Your task to perform on an android device: Clear all items from cart on newegg. Add dell alienware to the cart on newegg Image 0: 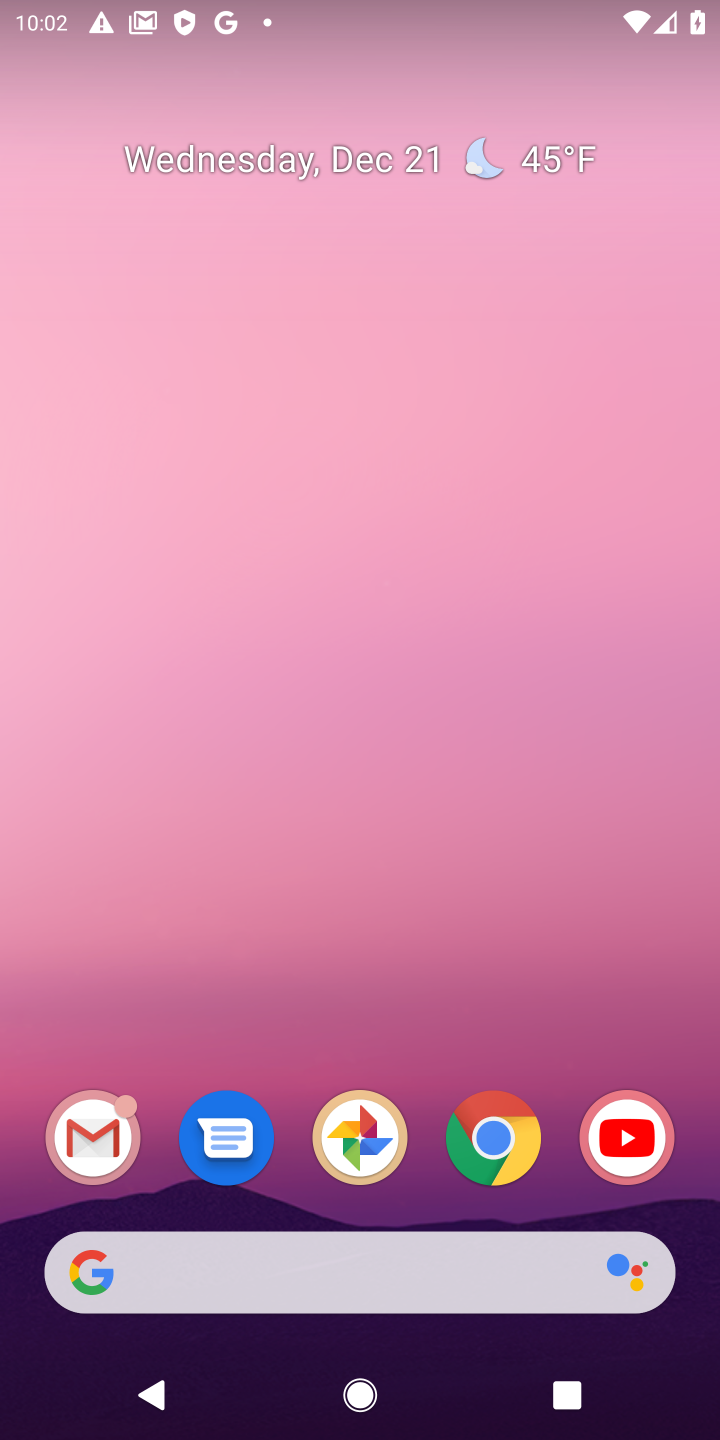
Step 0: click (482, 1142)
Your task to perform on an android device: Clear all items from cart on newegg. Add dell alienware to the cart on newegg Image 1: 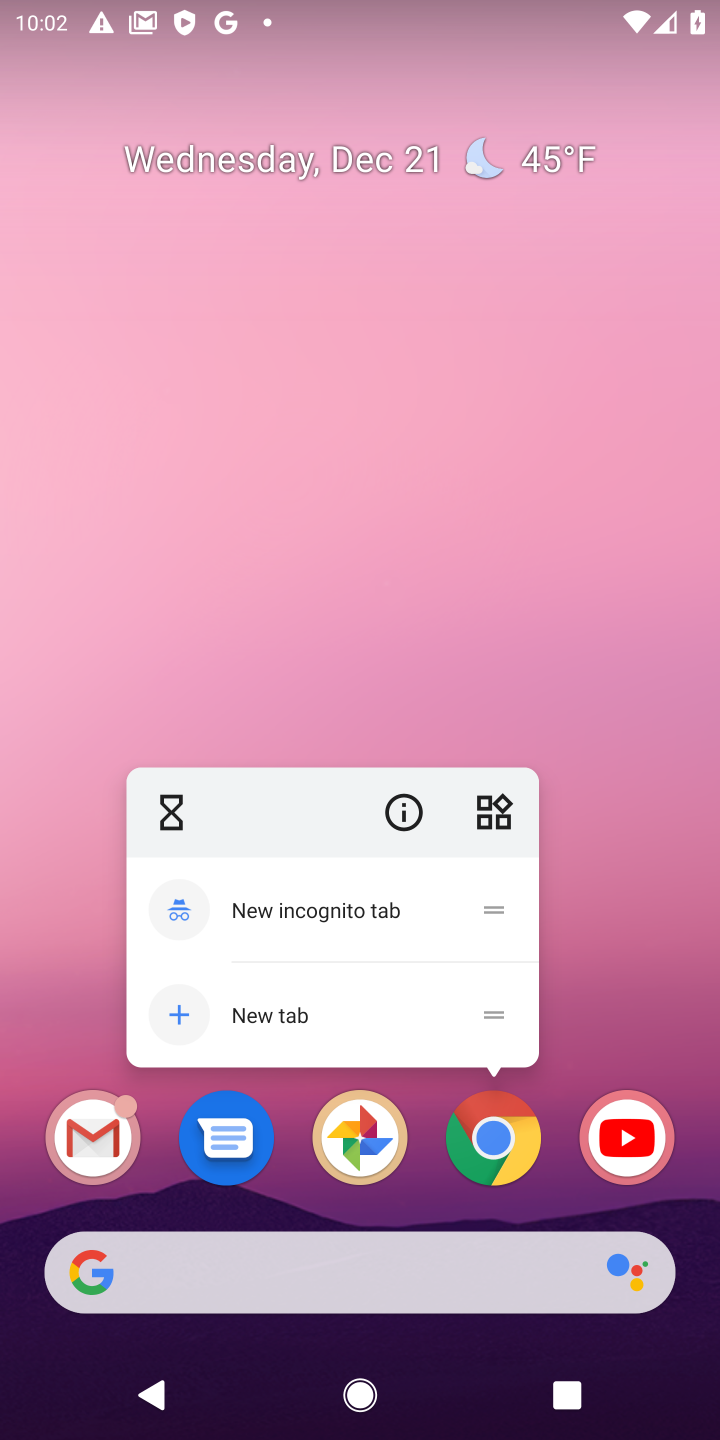
Step 1: click (490, 1152)
Your task to perform on an android device: Clear all items from cart on newegg. Add dell alienware to the cart on newegg Image 2: 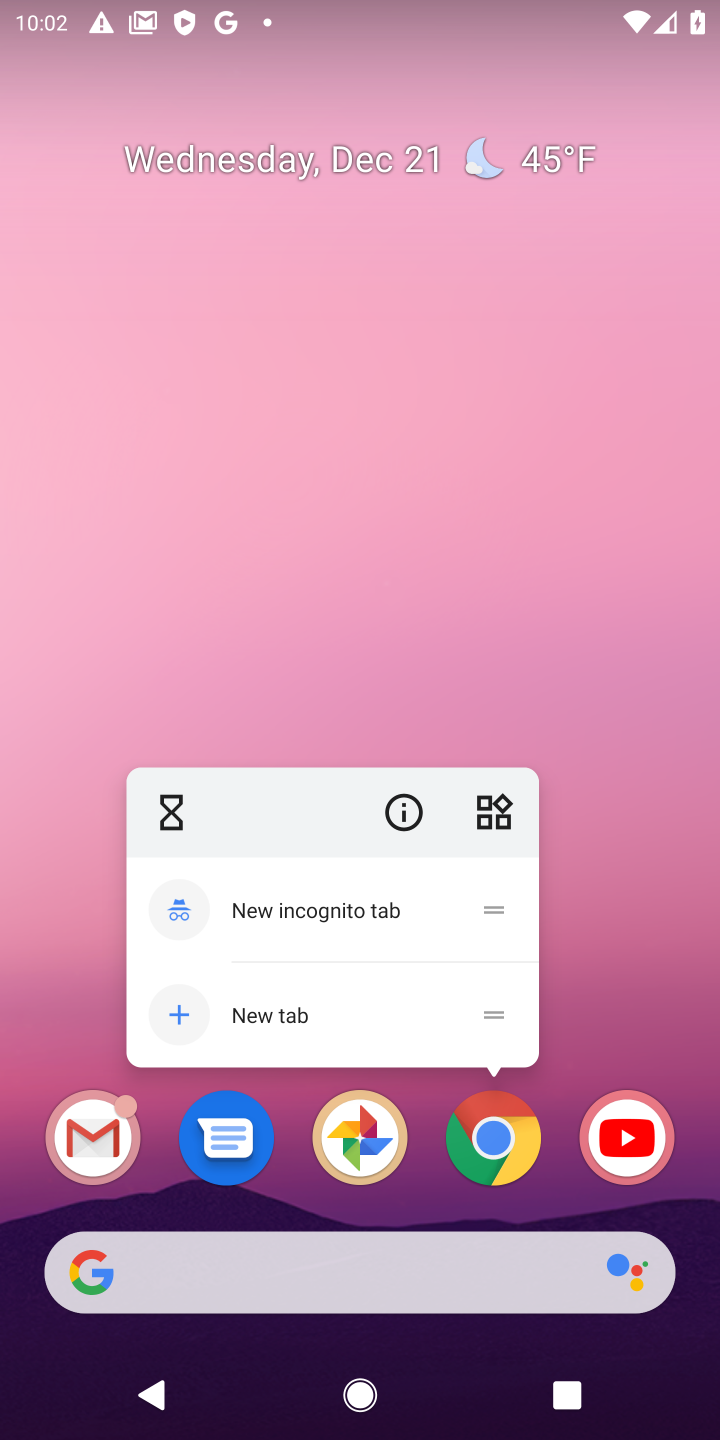
Step 2: click (509, 1147)
Your task to perform on an android device: Clear all items from cart on newegg. Add dell alienware to the cart on newegg Image 3: 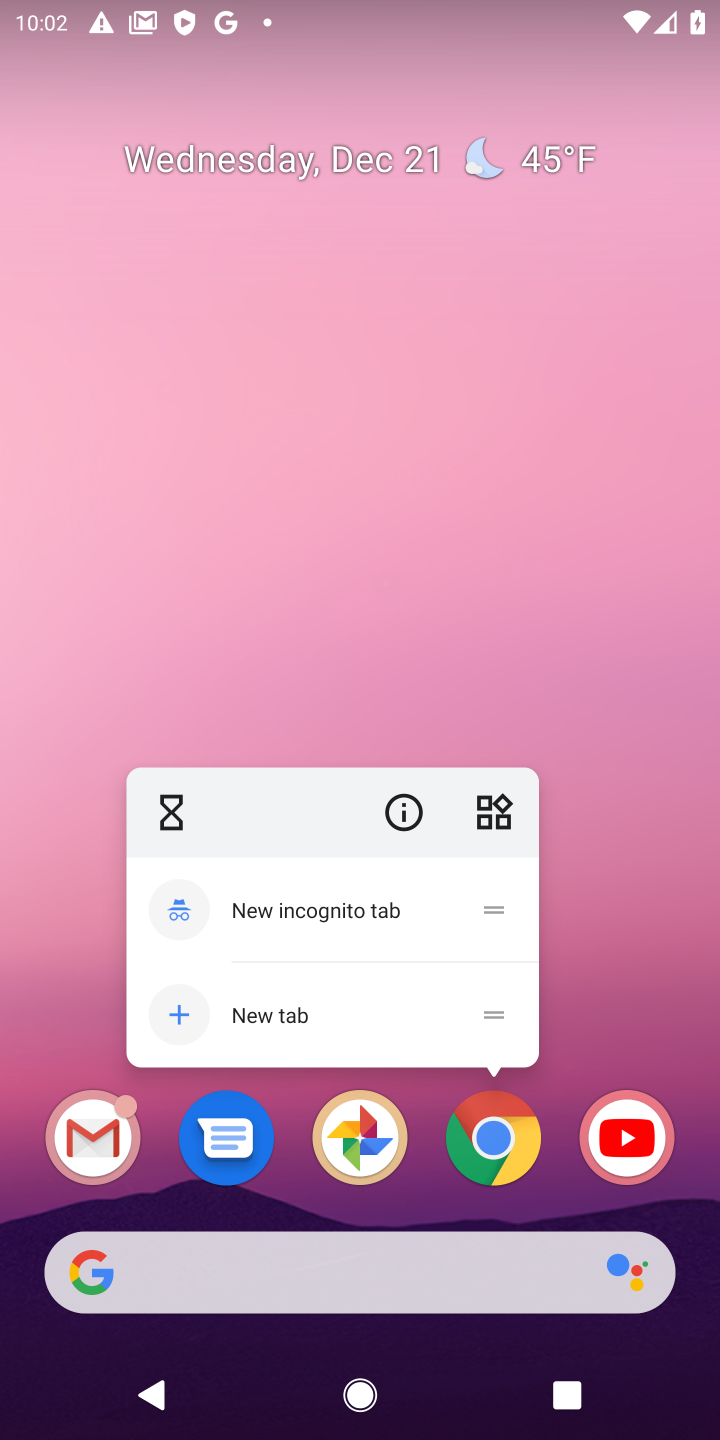
Step 3: click (500, 1138)
Your task to perform on an android device: Clear all items from cart on newegg. Add dell alienware to the cart on newegg Image 4: 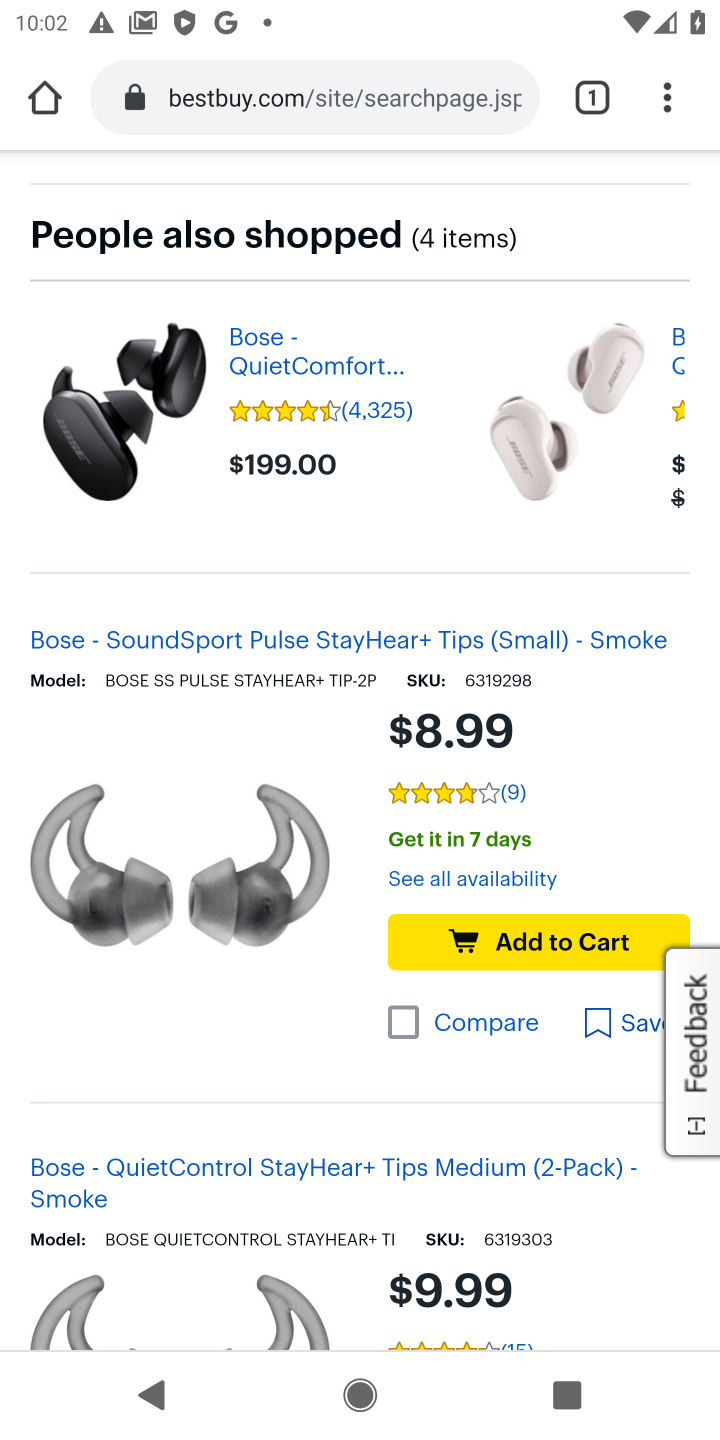
Step 4: click (239, 100)
Your task to perform on an android device: Clear all items from cart on newegg. Add dell alienware to the cart on newegg Image 5: 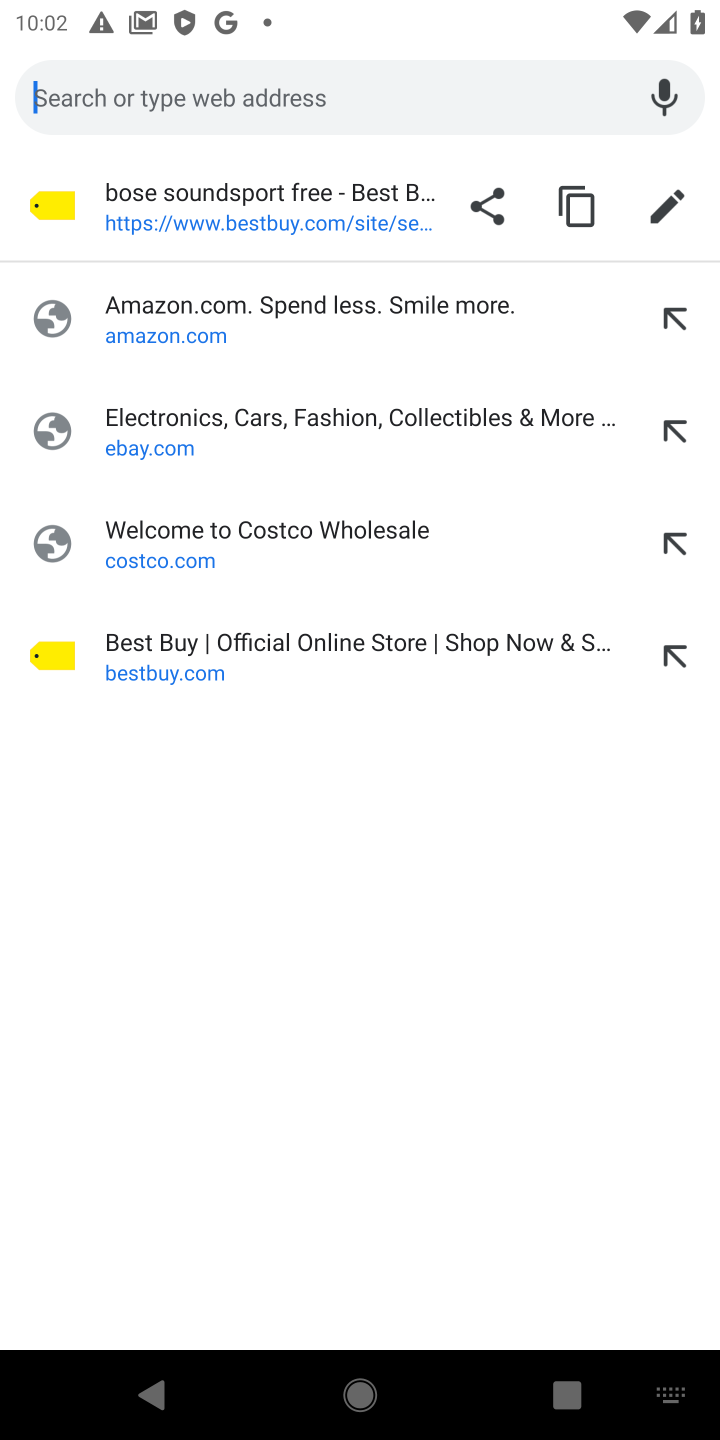
Step 5: type "newegg.com"
Your task to perform on an android device: Clear all items from cart on newegg. Add dell alienware to the cart on newegg Image 6: 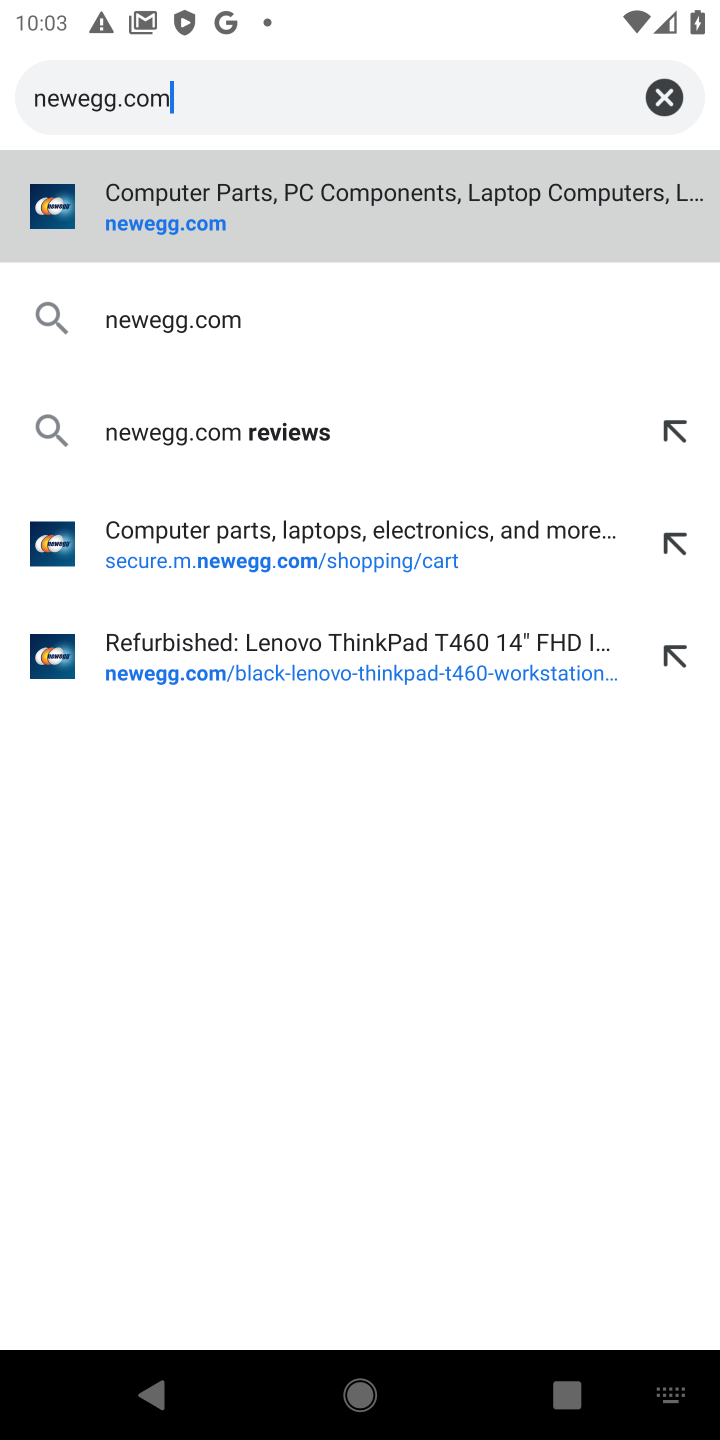
Step 6: click (154, 211)
Your task to perform on an android device: Clear all items from cart on newegg. Add dell alienware to the cart on newegg Image 7: 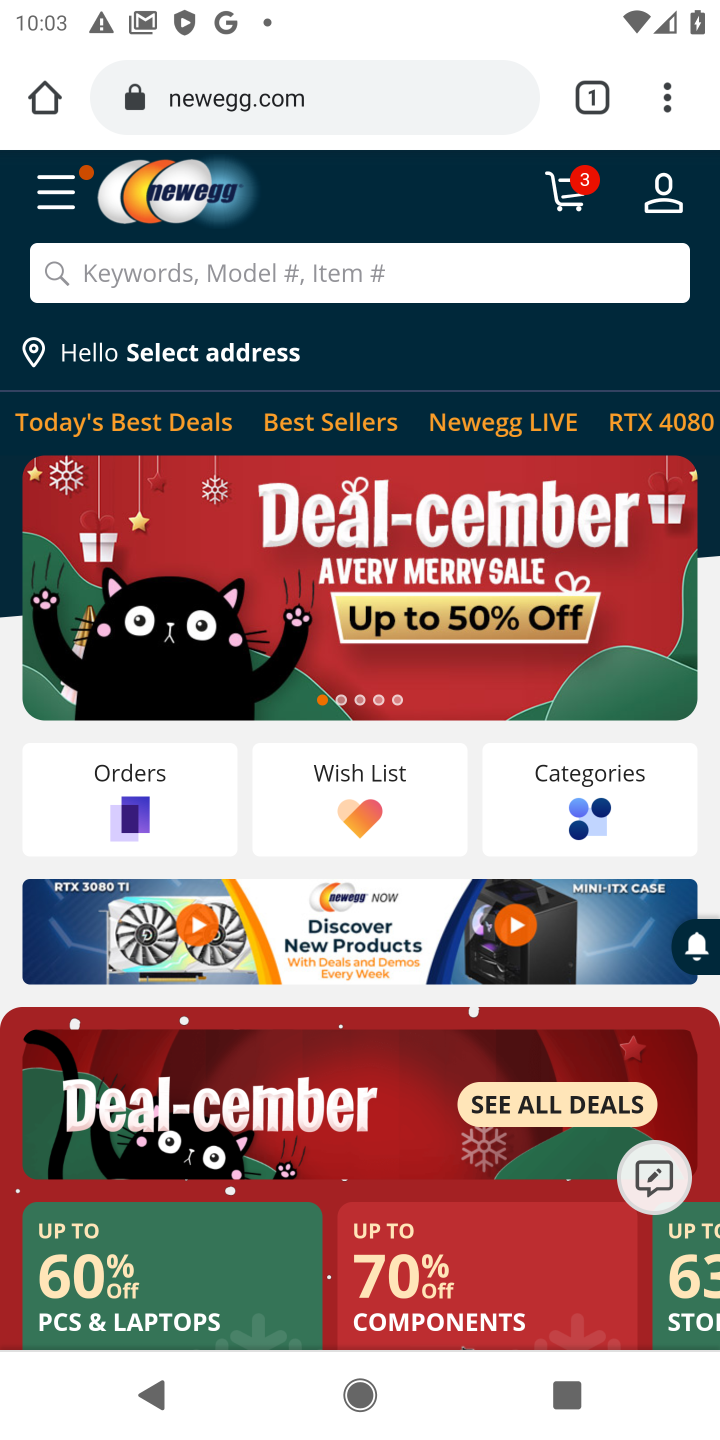
Step 7: click (560, 198)
Your task to perform on an android device: Clear all items from cart on newegg. Add dell alienware to the cart on newegg Image 8: 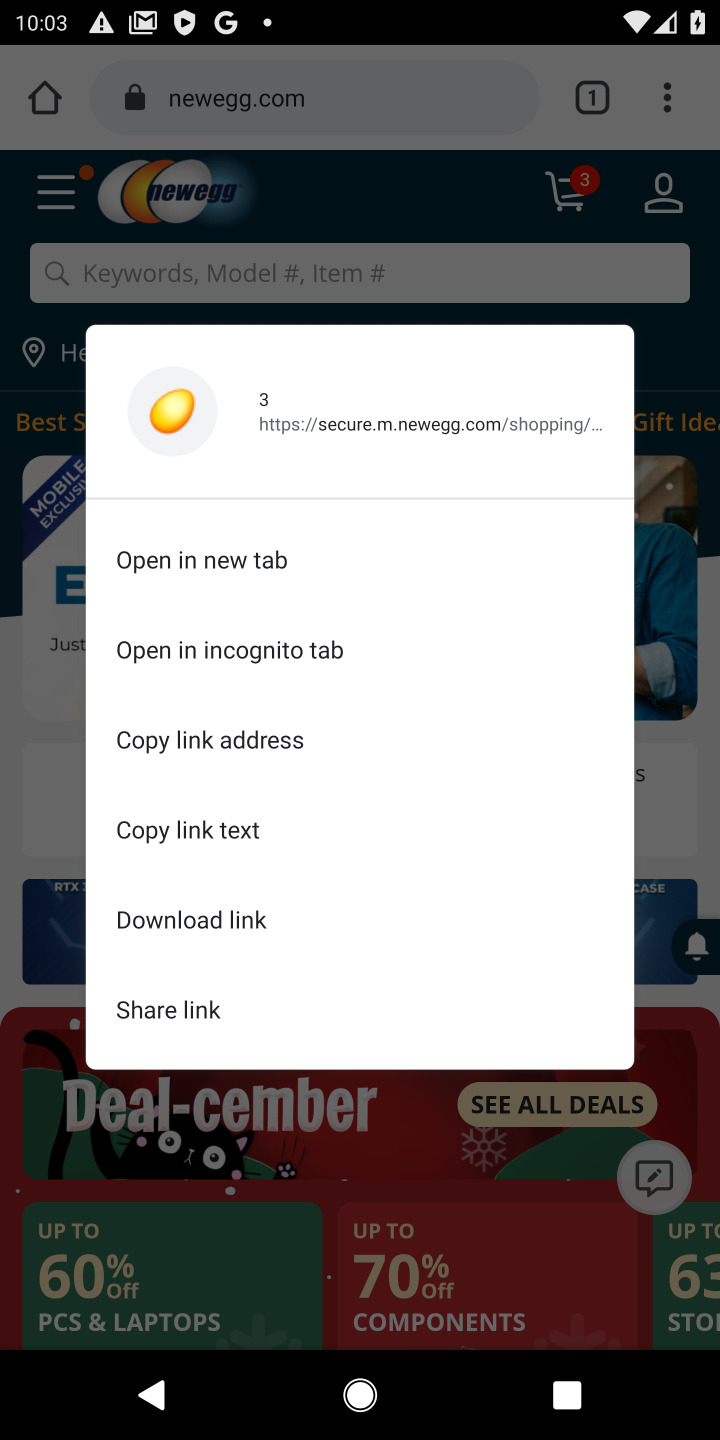
Step 8: click (574, 186)
Your task to perform on an android device: Clear all items from cart on newegg. Add dell alienware to the cart on newegg Image 9: 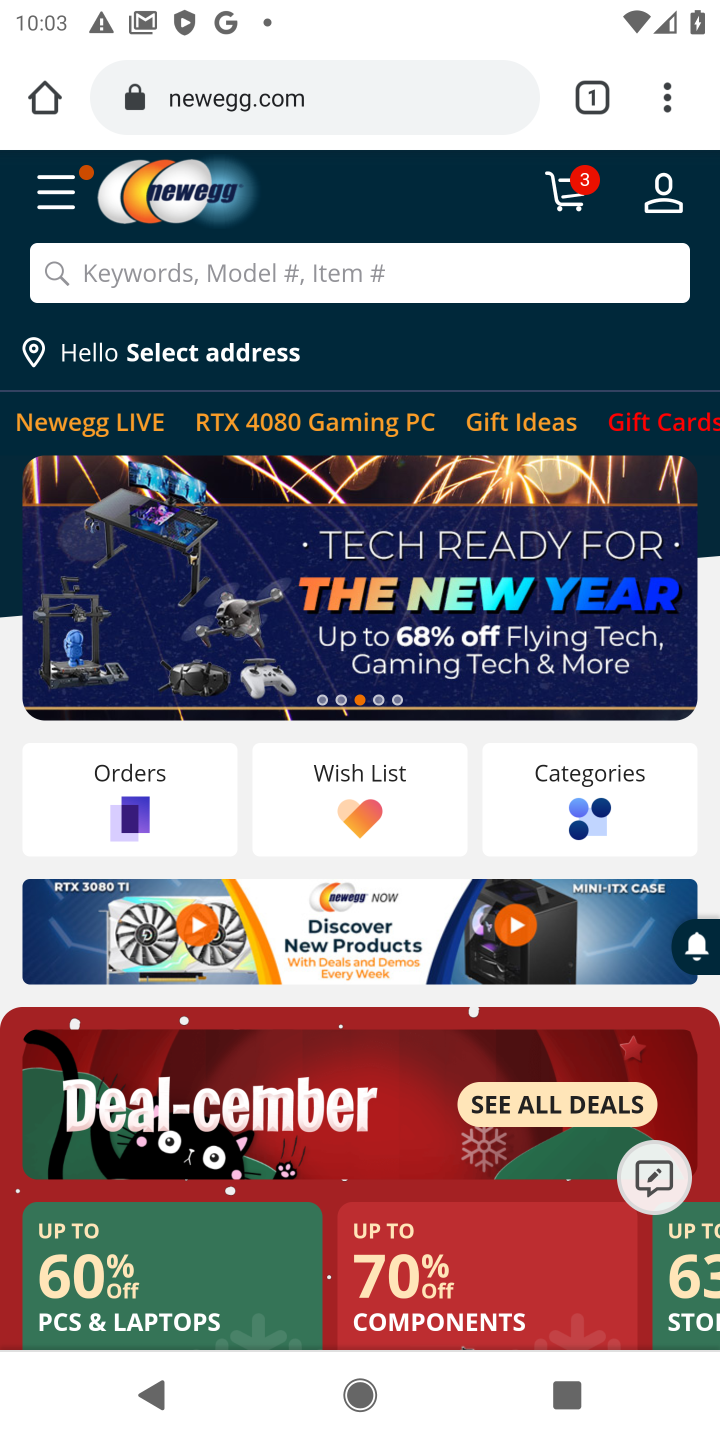
Step 9: click (572, 195)
Your task to perform on an android device: Clear all items from cart on newegg. Add dell alienware to the cart on newegg Image 10: 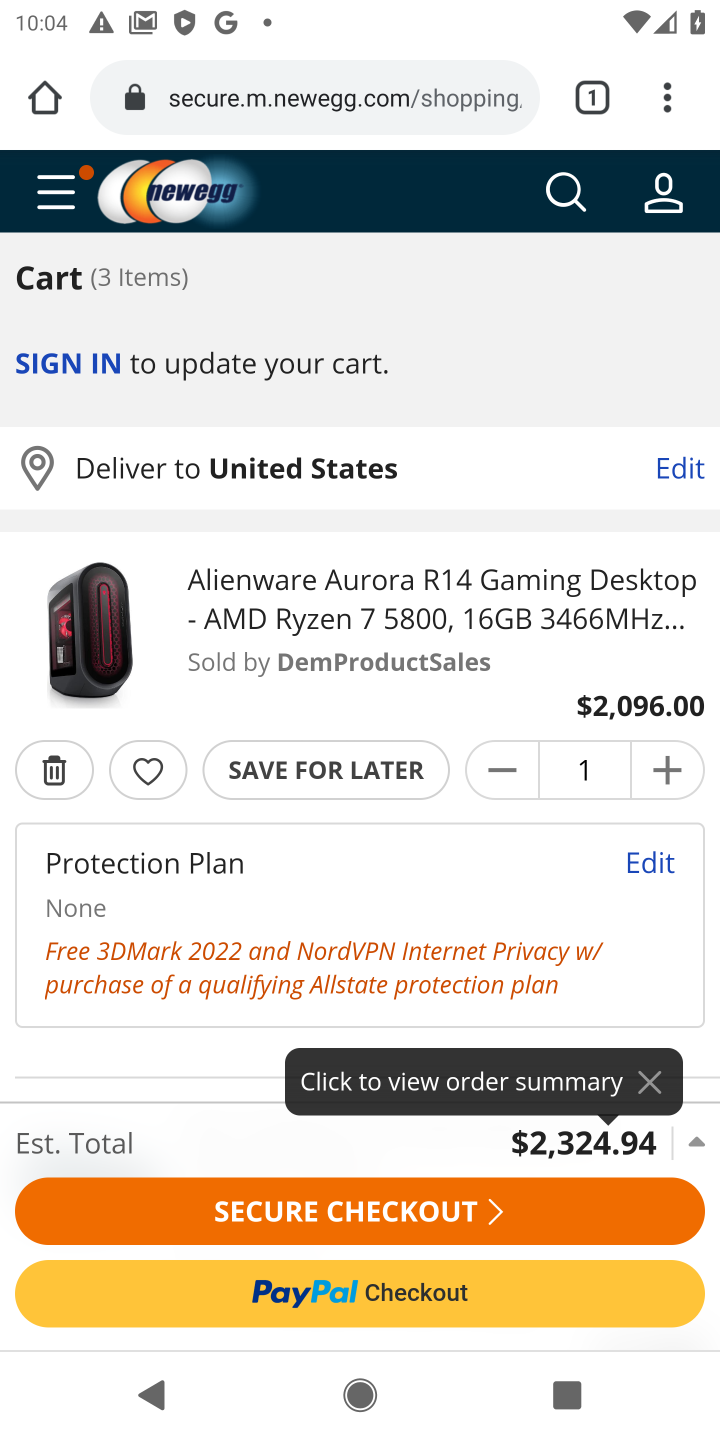
Step 10: click (53, 780)
Your task to perform on an android device: Clear all items from cart on newegg. Add dell alienware to the cart on newegg Image 11: 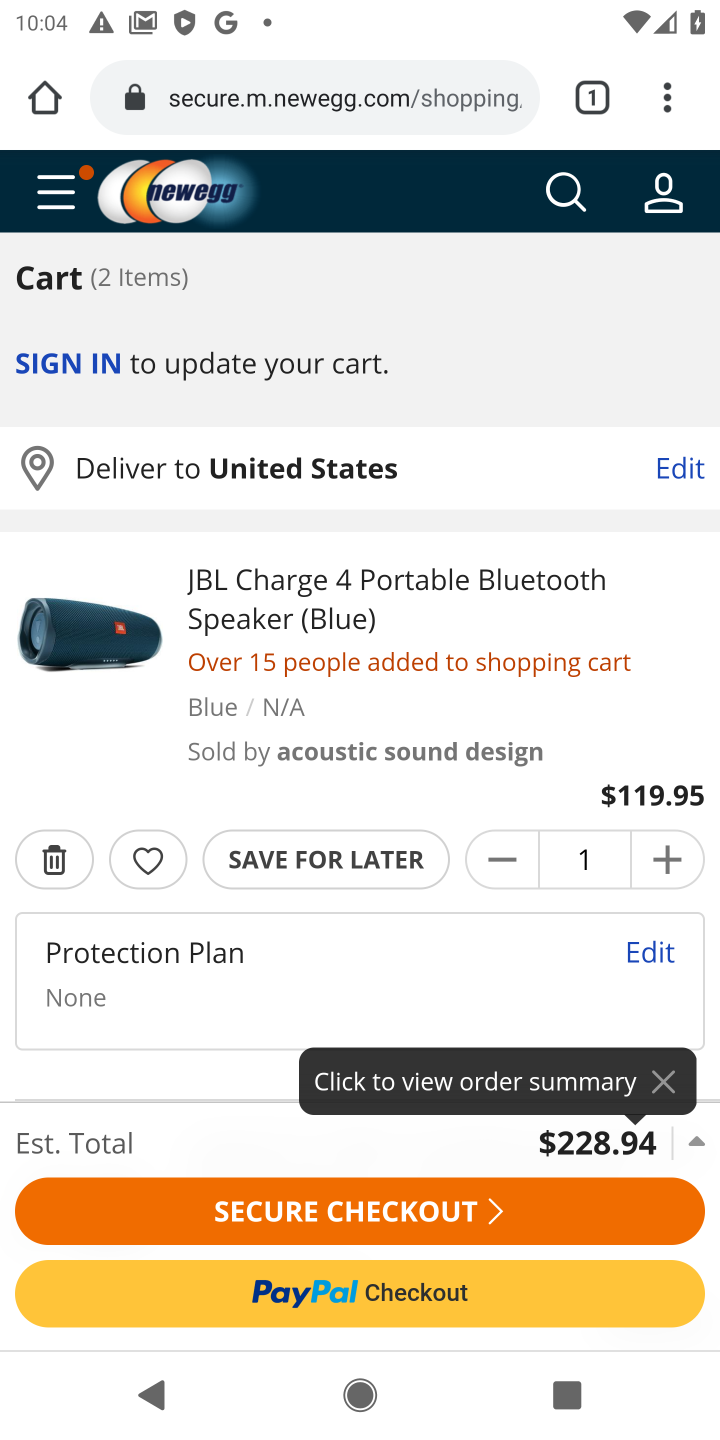
Step 11: click (53, 861)
Your task to perform on an android device: Clear all items from cart on newegg. Add dell alienware to the cart on newegg Image 12: 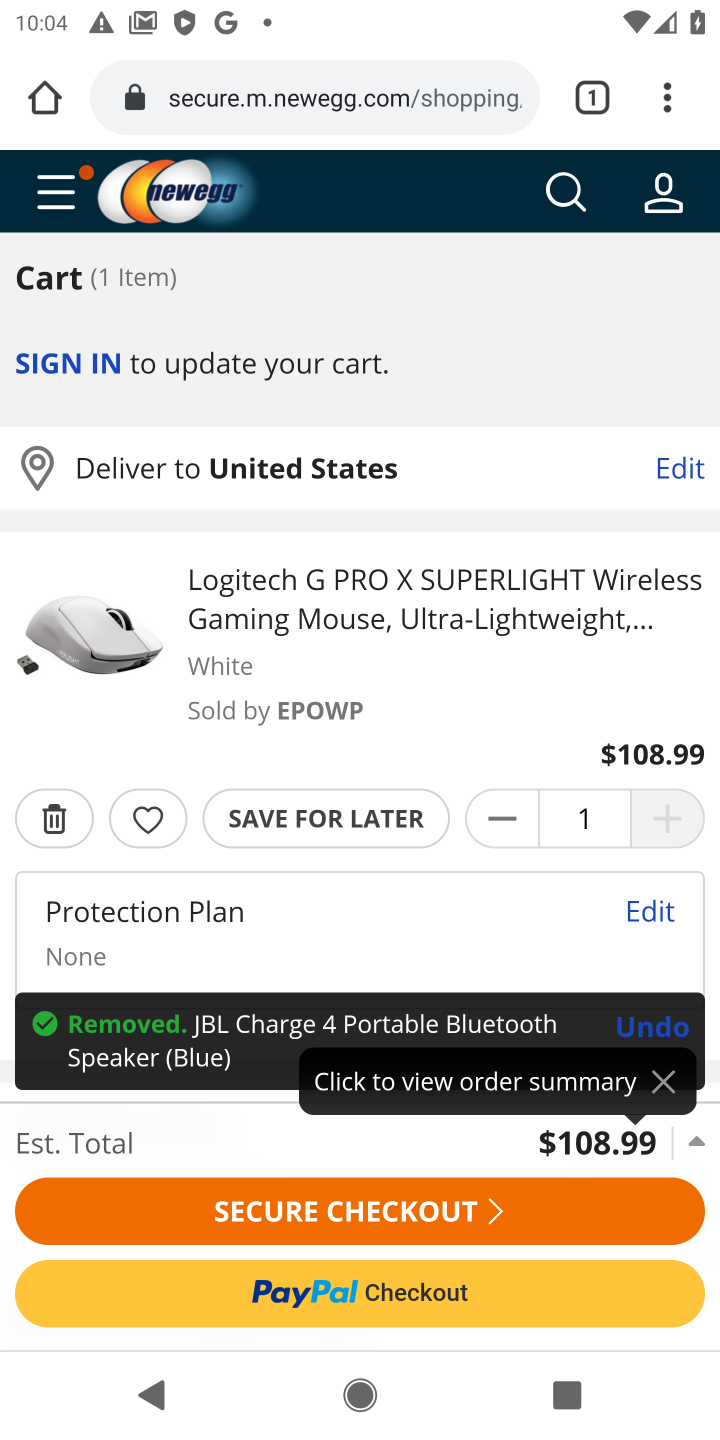
Step 12: click (46, 825)
Your task to perform on an android device: Clear all items from cart on newegg. Add dell alienware to the cart on newegg Image 13: 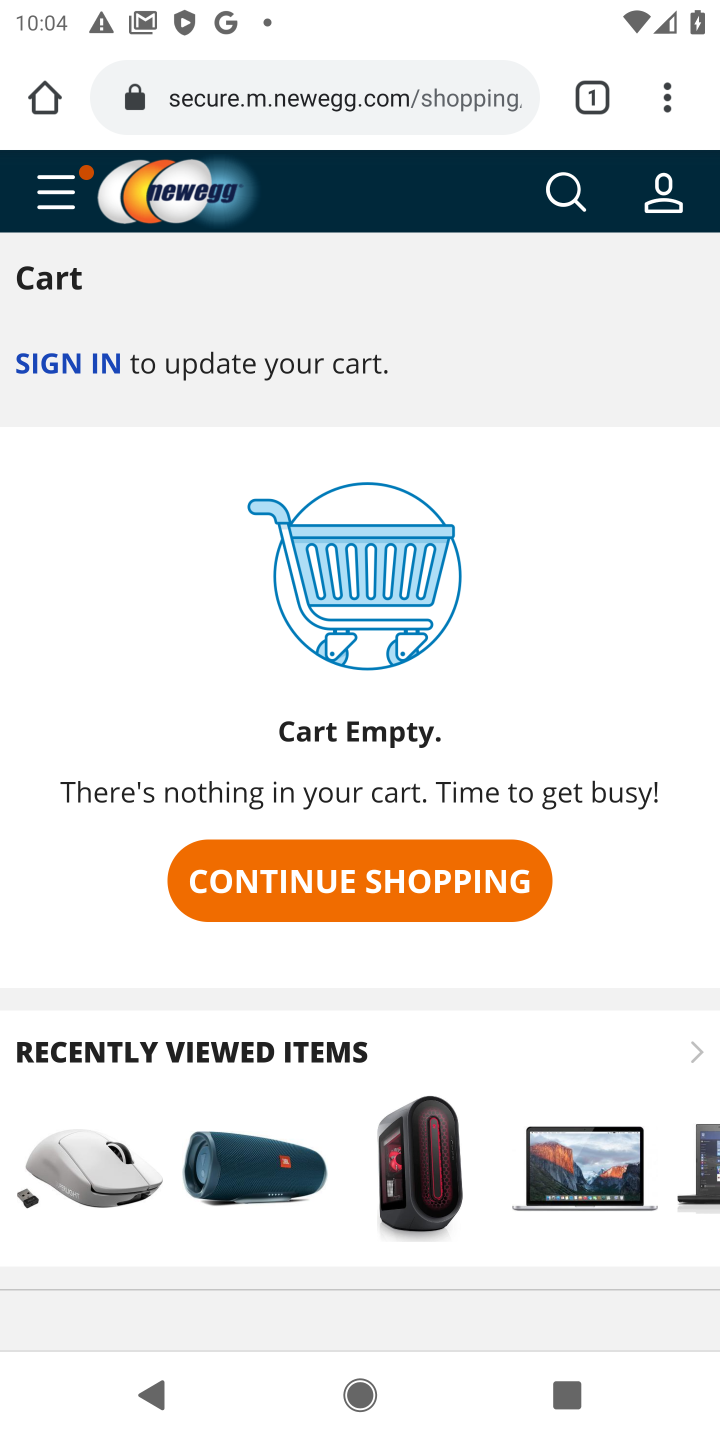
Step 13: click (563, 180)
Your task to perform on an android device: Clear all items from cart on newegg. Add dell alienware to the cart on newegg Image 14: 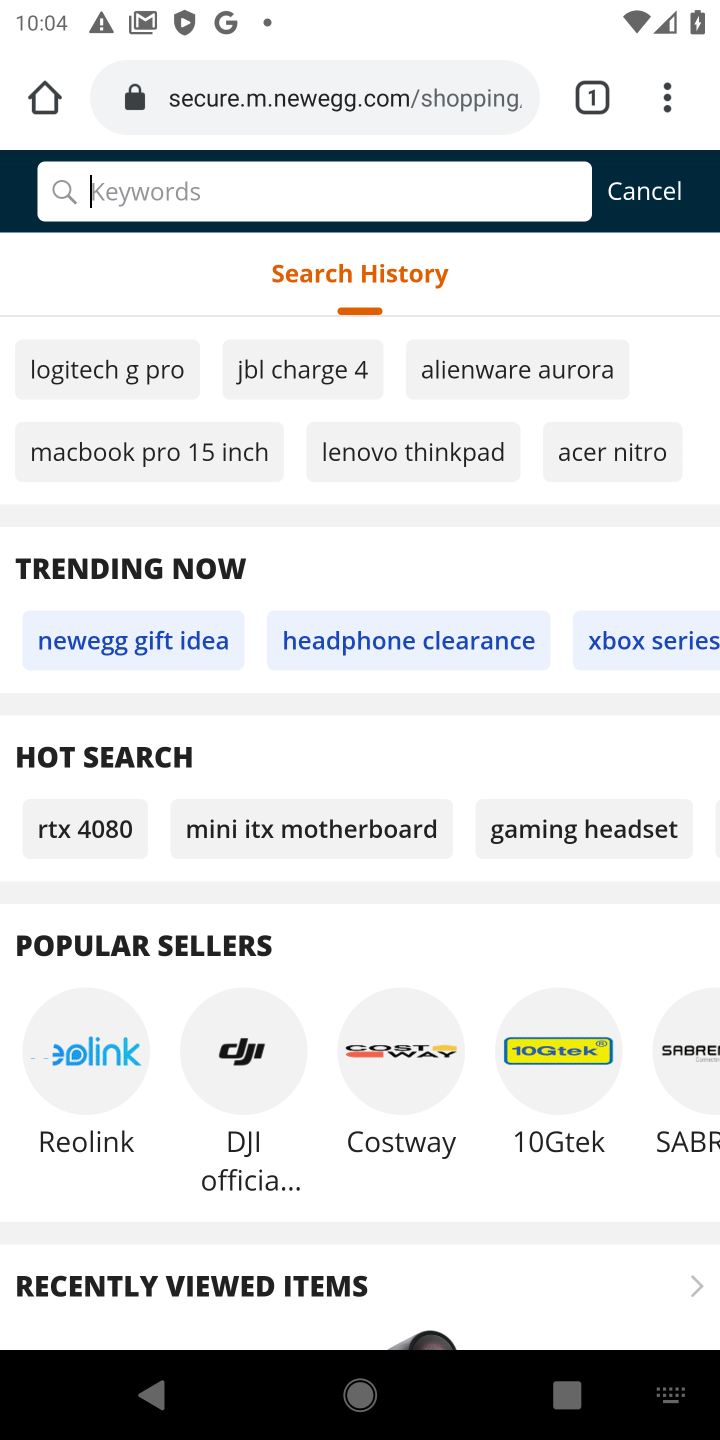
Step 14: type "dell alienware"
Your task to perform on an android device: Clear all items from cart on newegg. Add dell alienware to the cart on newegg Image 15: 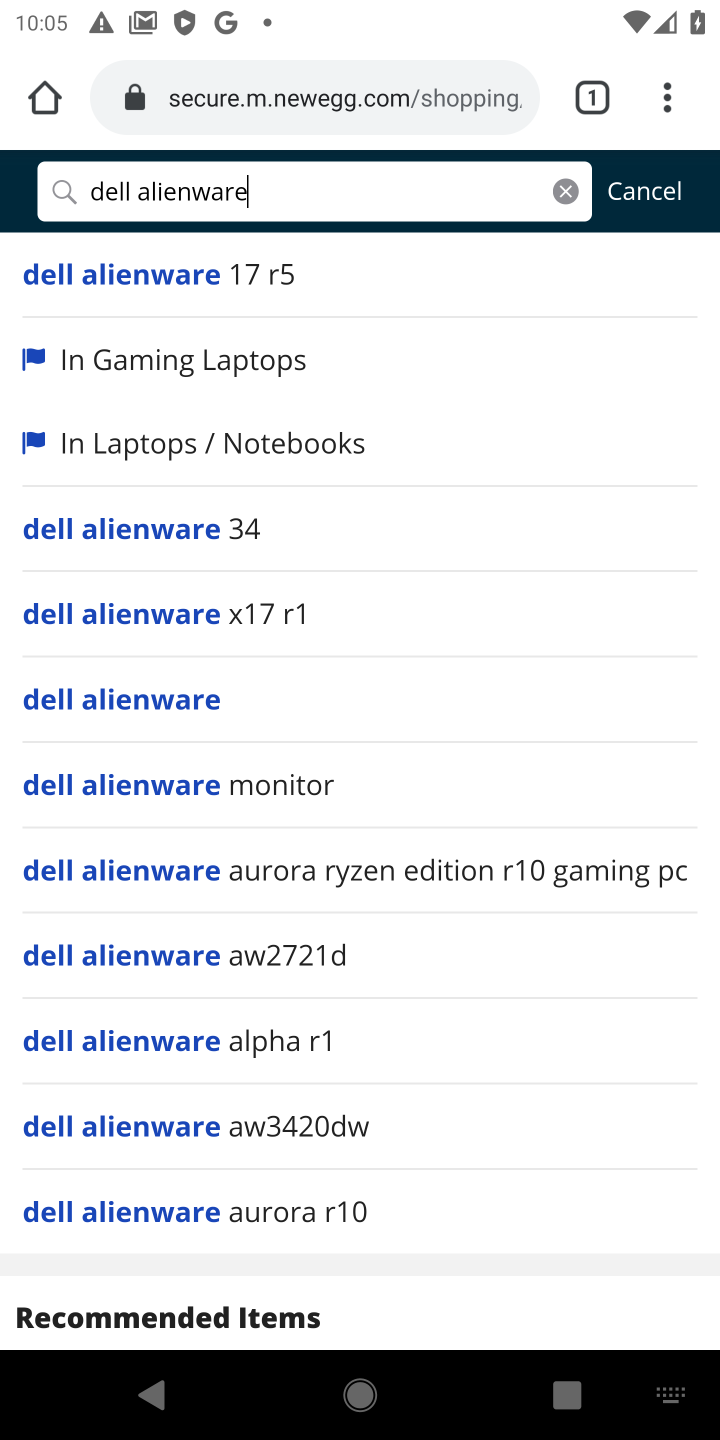
Step 15: click (129, 703)
Your task to perform on an android device: Clear all items from cart on newegg. Add dell alienware to the cart on newegg Image 16: 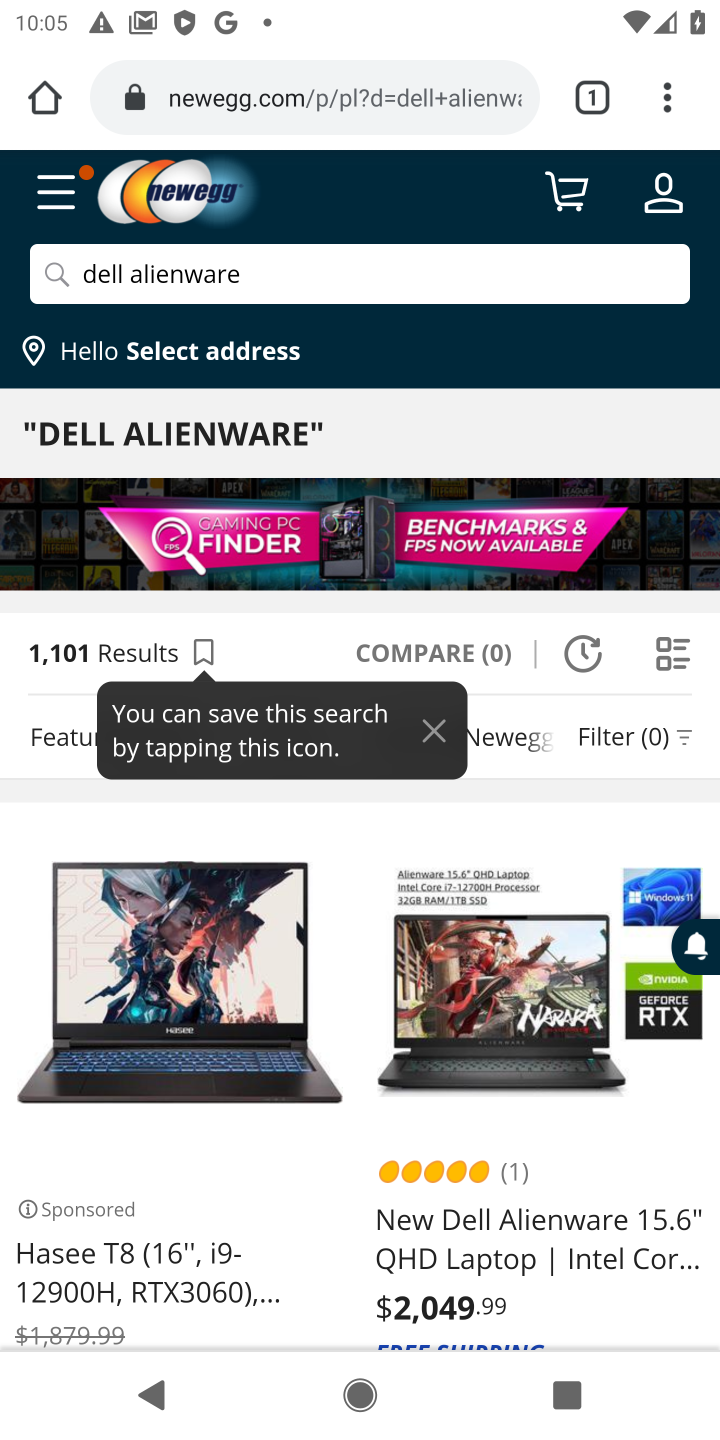
Step 16: drag from (371, 1084) to (441, 553)
Your task to perform on an android device: Clear all items from cart on newegg. Add dell alienware to the cart on newegg Image 17: 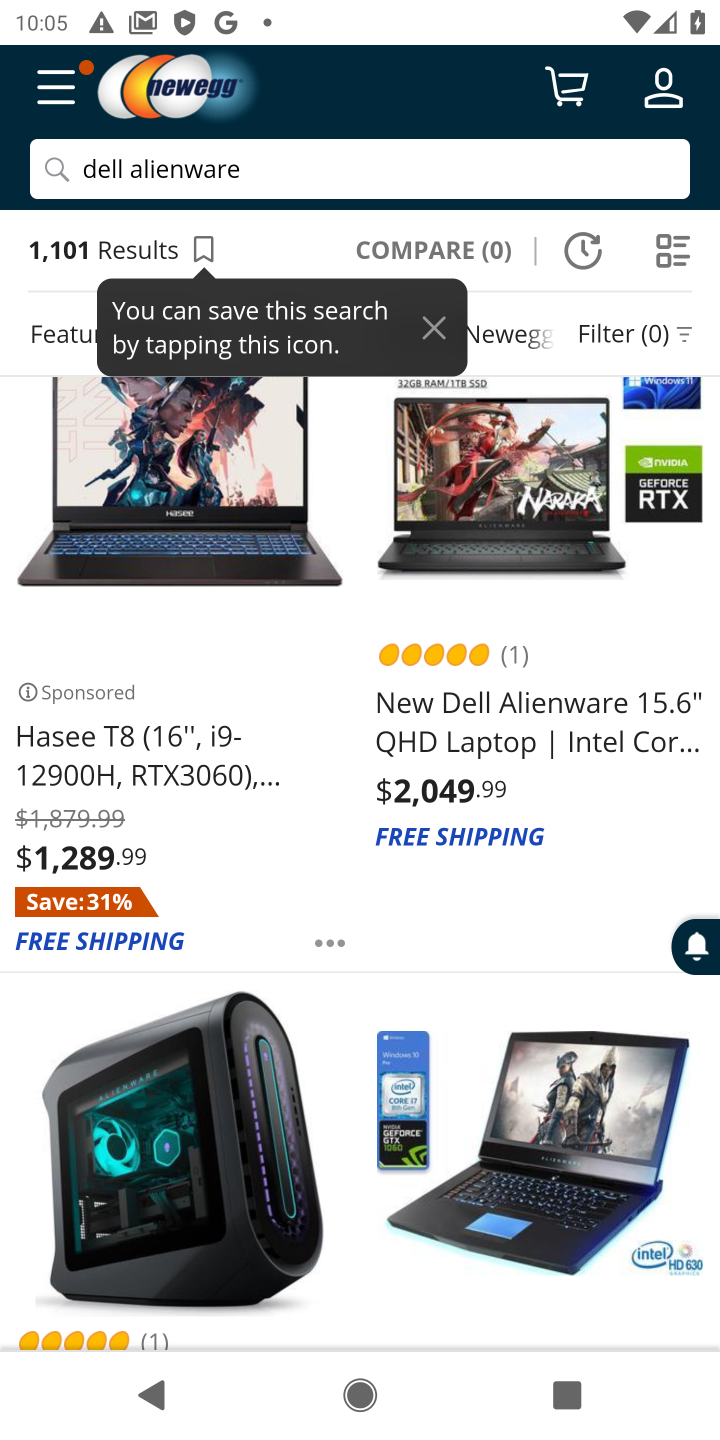
Step 17: click (487, 733)
Your task to perform on an android device: Clear all items from cart on newegg. Add dell alienware to the cart on newegg Image 18: 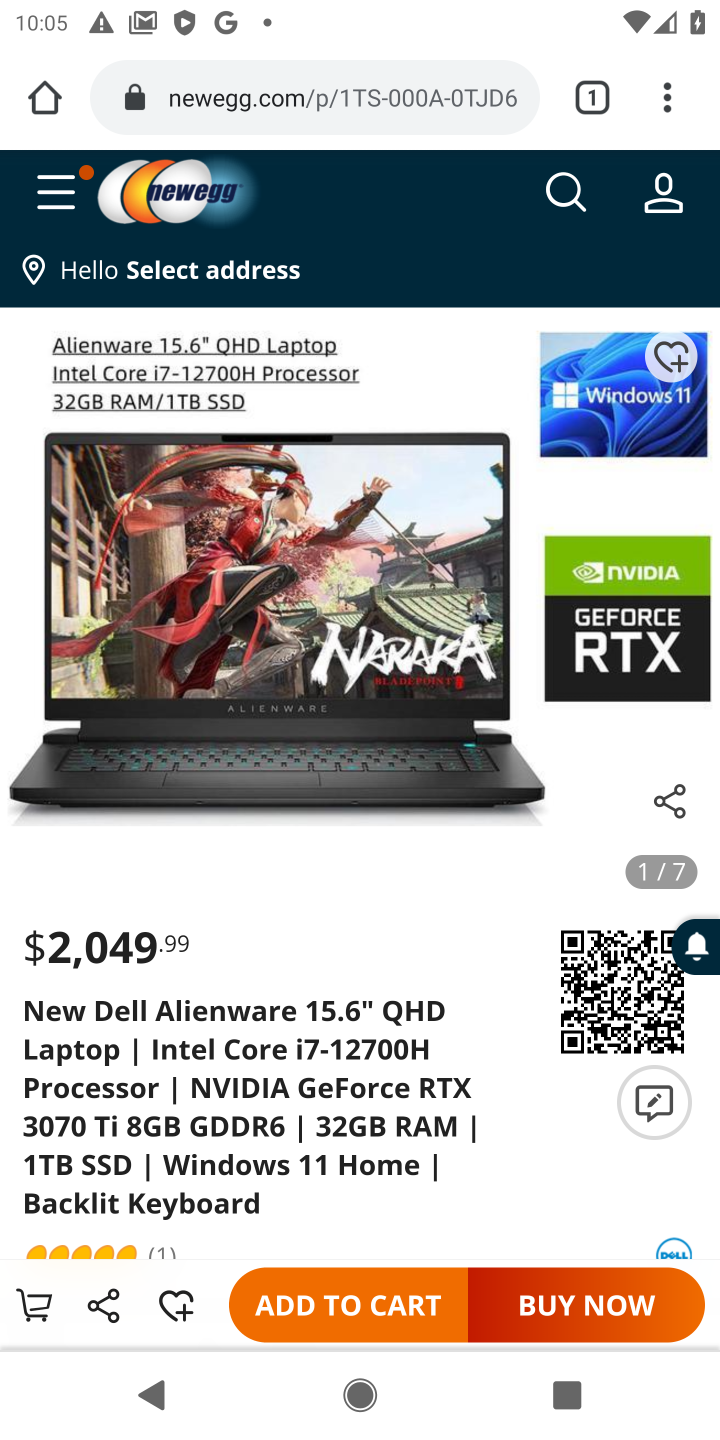
Step 18: click (338, 1313)
Your task to perform on an android device: Clear all items from cart on newegg. Add dell alienware to the cart on newegg Image 19: 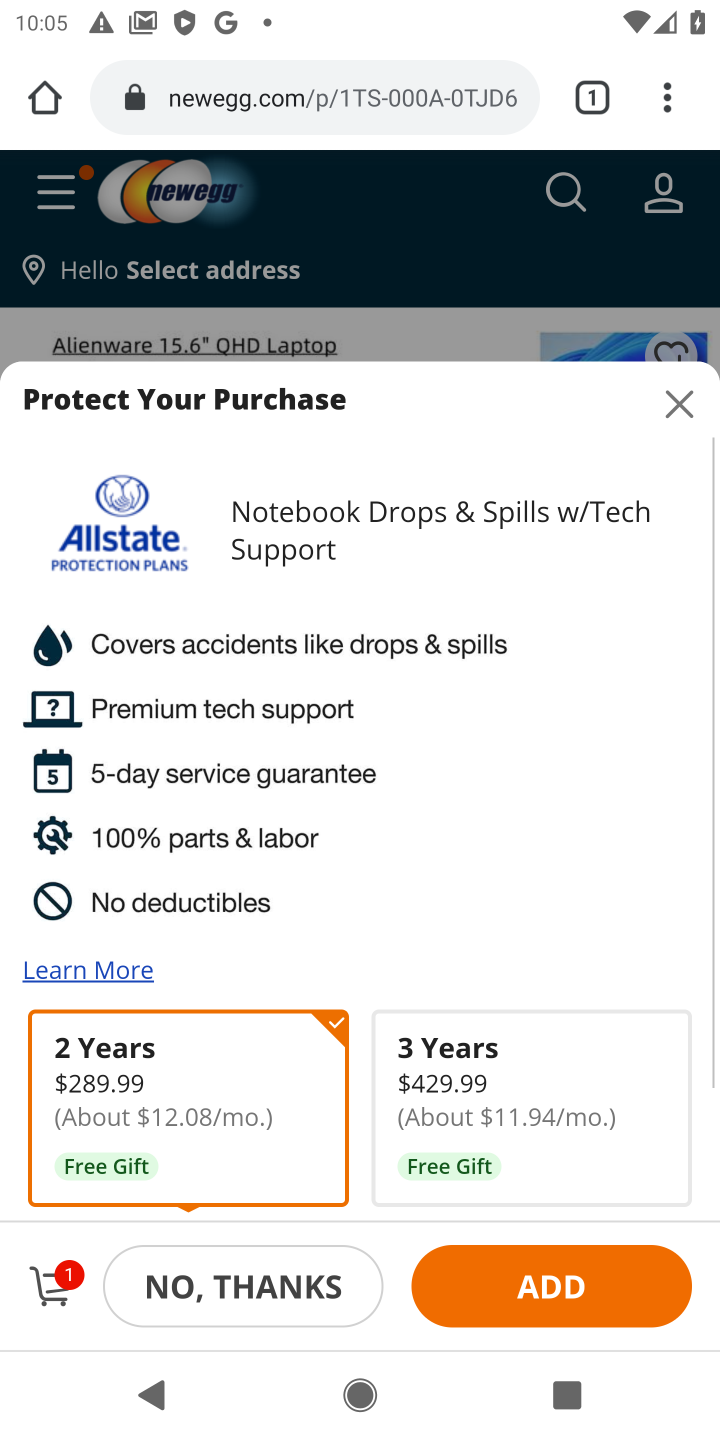
Step 19: task complete